Your task to perform on an android device: Search for seafood restaurants on Google Maps Image 0: 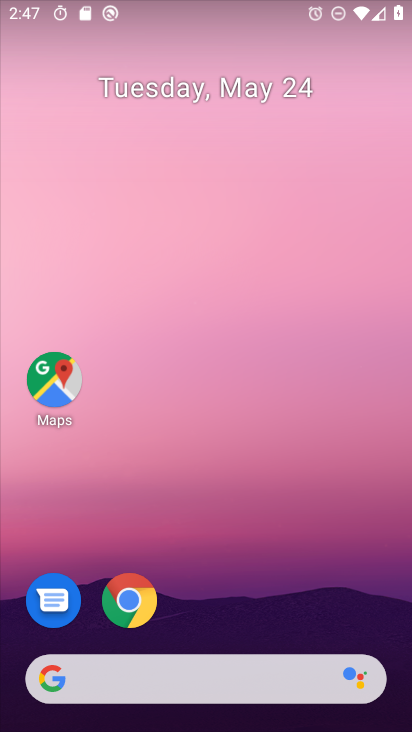
Step 0: click (42, 394)
Your task to perform on an android device: Search for seafood restaurants on Google Maps Image 1: 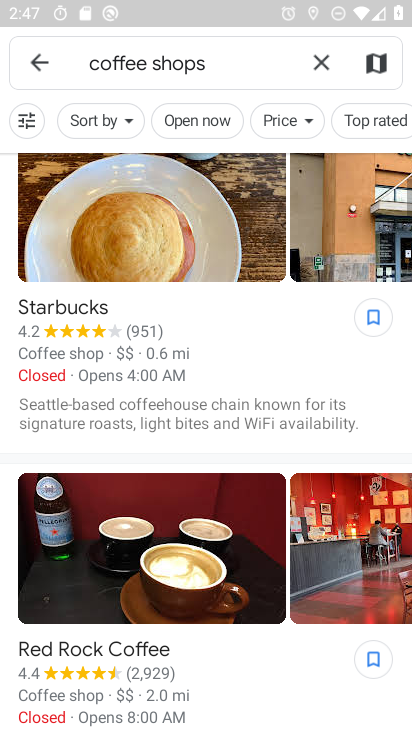
Step 1: click (256, 60)
Your task to perform on an android device: Search for seafood restaurants on Google Maps Image 2: 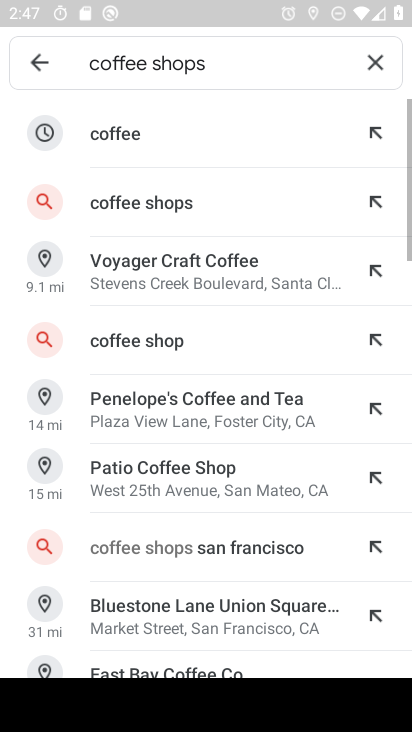
Step 2: click (372, 57)
Your task to perform on an android device: Search for seafood restaurants on Google Maps Image 3: 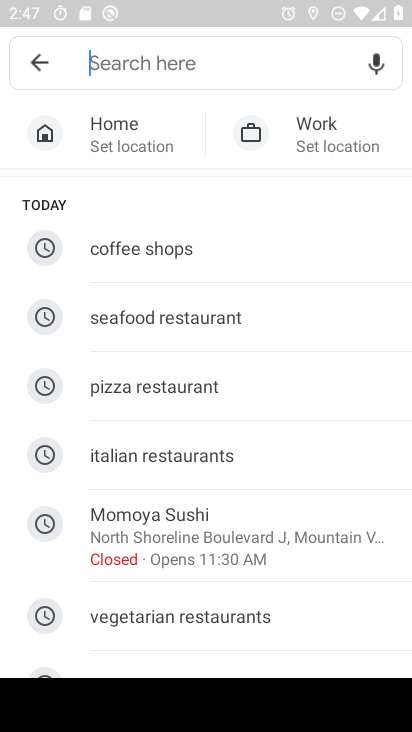
Step 3: drag from (340, 574) to (366, 251)
Your task to perform on an android device: Search for seafood restaurants on Google Maps Image 4: 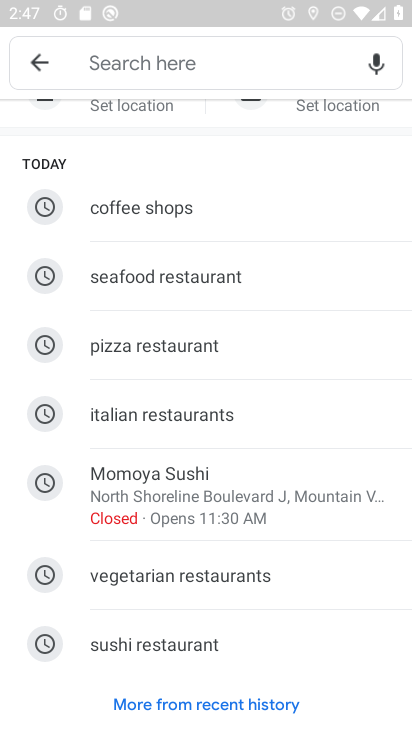
Step 4: type "seafood restaurants"
Your task to perform on an android device: Search for seafood restaurants on Google Maps Image 5: 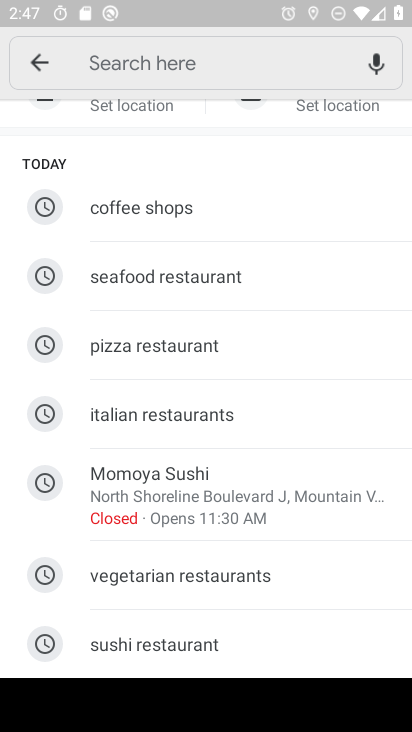
Step 5: drag from (288, 238) to (247, 619)
Your task to perform on an android device: Search for seafood restaurants on Google Maps Image 6: 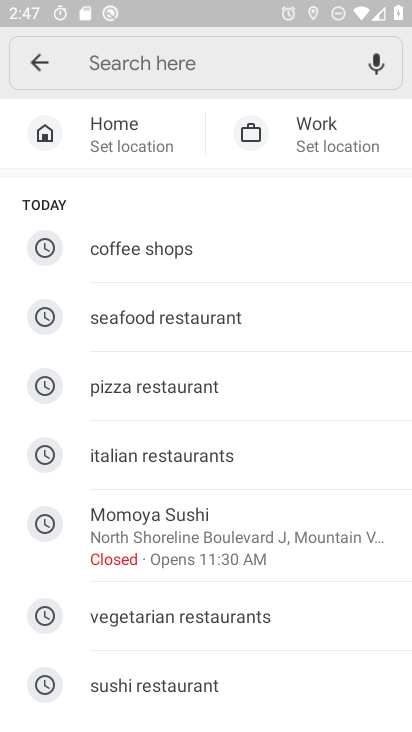
Step 6: click (293, 64)
Your task to perform on an android device: Search for seafood restaurants on Google Maps Image 7: 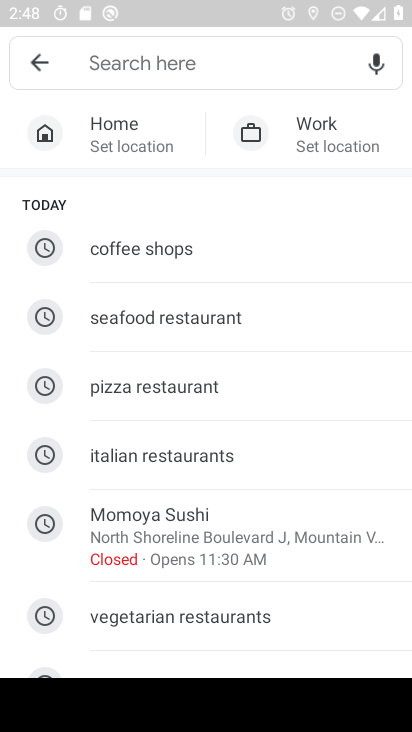
Step 7: type "seafood restaurants"
Your task to perform on an android device: Search for seafood restaurants on Google Maps Image 8: 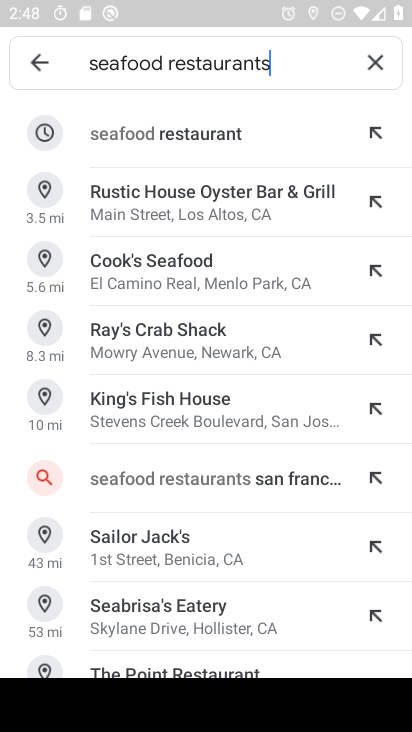
Step 8: press enter
Your task to perform on an android device: Search for seafood restaurants on Google Maps Image 9: 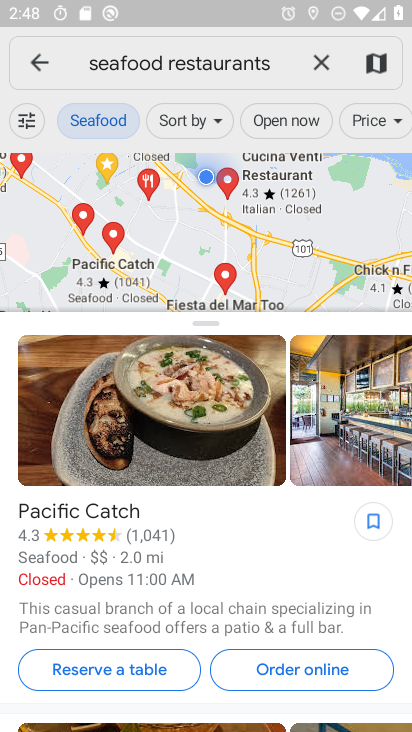
Step 9: task complete